Your task to perform on an android device: Search for "razer blade" on costco.com, select the first entry, add it to the cart, then select checkout. Image 0: 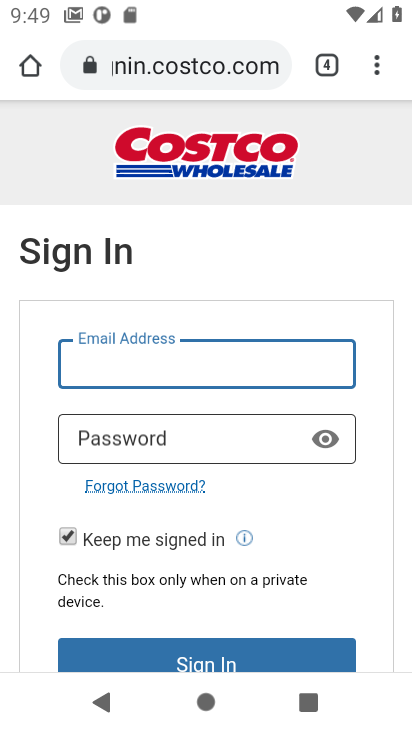
Step 0: press back button
Your task to perform on an android device: Search for "razer blade" on costco.com, select the first entry, add it to the cart, then select checkout. Image 1: 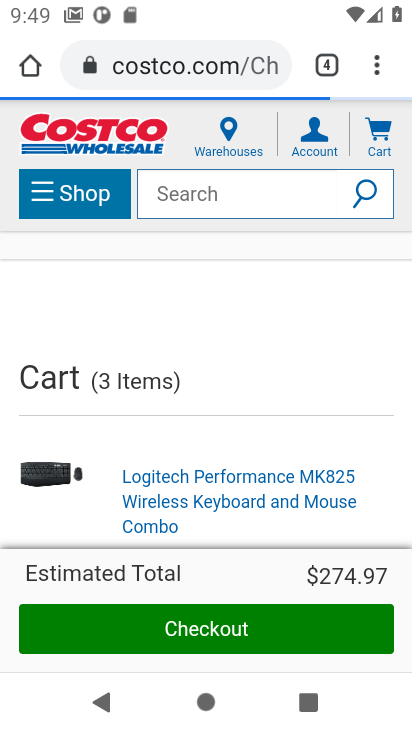
Step 1: click (184, 199)
Your task to perform on an android device: Search for "razer blade" on costco.com, select the first entry, add it to the cart, then select checkout. Image 2: 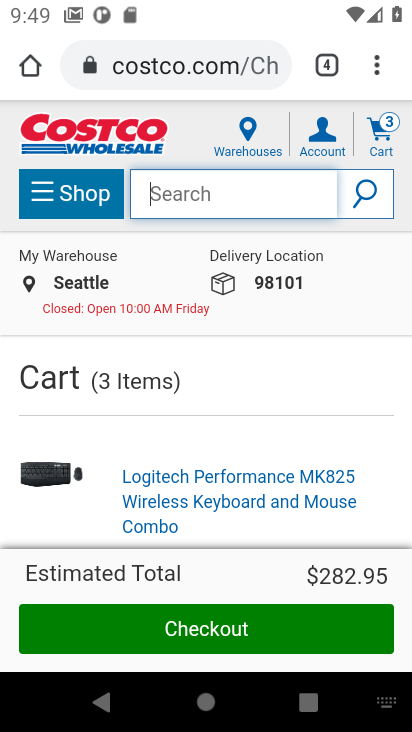
Step 2: type "razer blade"
Your task to perform on an android device: Search for "razer blade" on costco.com, select the first entry, add it to the cart, then select checkout. Image 3: 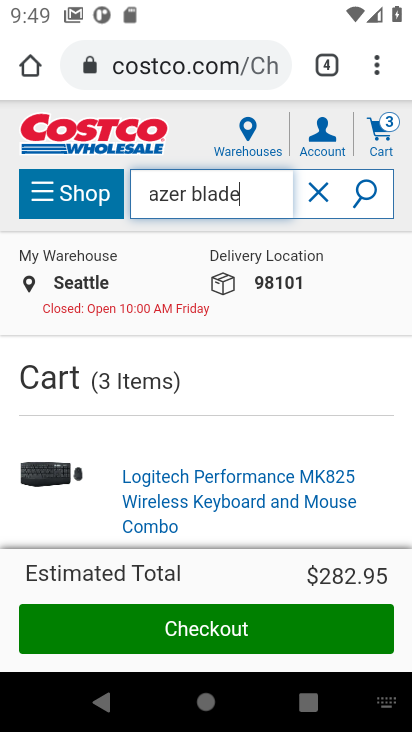
Step 3: press enter
Your task to perform on an android device: Search for "razer blade" on costco.com, select the first entry, add it to the cart, then select checkout. Image 4: 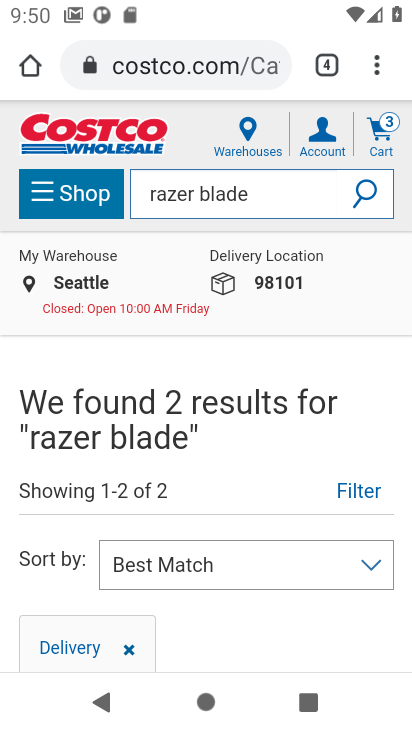
Step 4: drag from (215, 458) to (221, 171)
Your task to perform on an android device: Search for "razer blade" on costco.com, select the first entry, add it to the cart, then select checkout. Image 5: 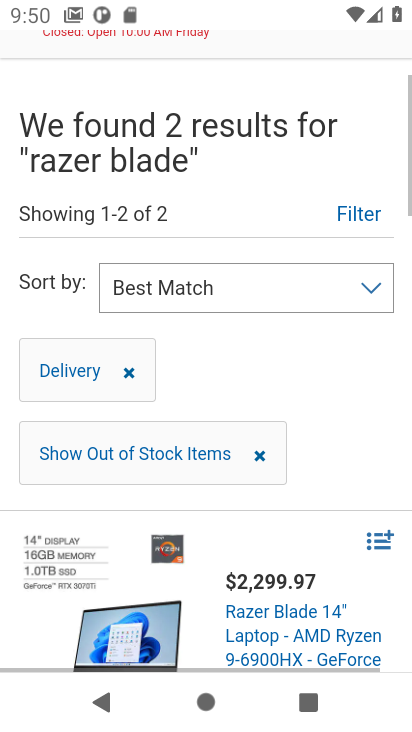
Step 5: drag from (266, 449) to (267, 155)
Your task to perform on an android device: Search for "razer blade" on costco.com, select the first entry, add it to the cart, then select checkout. Image 6: 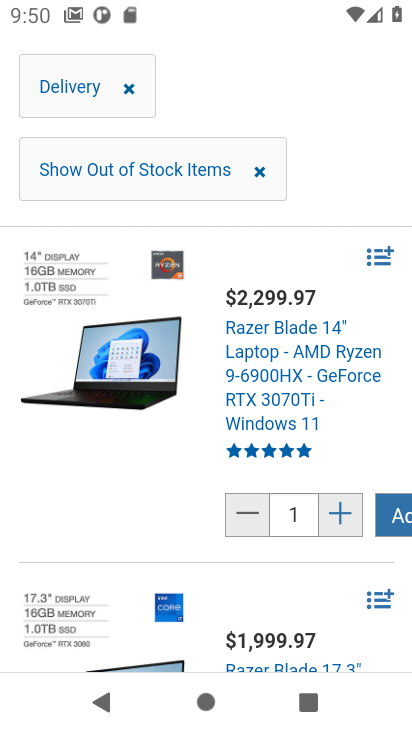
Step 6: click (402, 512)
Your task to perform on an android device: Search for "razer blade" on costco.com, select the first entry, add it to the cart, then select checkout. Image 7: 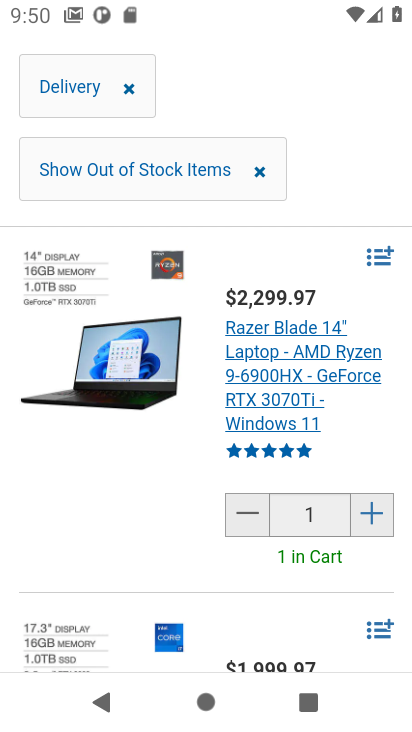
Step 7: drag from (311, 325) to (301, 607)
Your task to perform on an android device: Search for "razer blade" on costco.com, select the first entry, add it to the cart, then select checkout. Image 8: 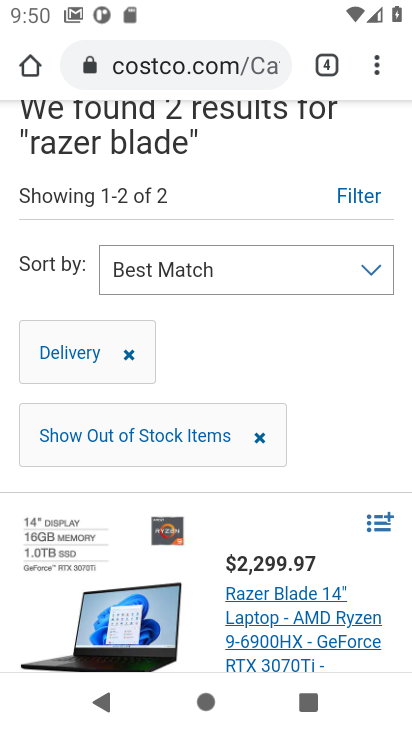
Step 8: drag from (217, 327) to (235, 582)
Your task to perform on an android device: Search for "razer blade" on costco.com, select the first entry, add it to the cart, then select checkout. Image 9: 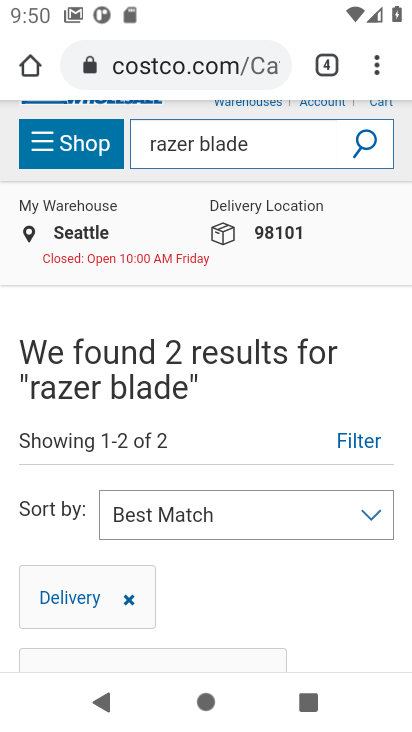
Step 9: drag from (214, 287) to (218, 551)
Your task to perform on an android device: Search for "razer blade" on costco.com, select the first entry, add it to the cart, then select checkout. Image 10: 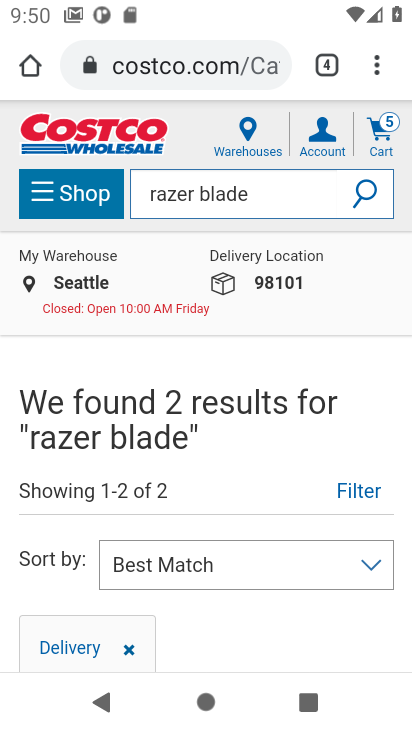
Step 10: click (381, 125)
Your task to perform on an android device: Search for "razer blade" on costco.com, select the first entry, add it to the cart, then select checkout. Image 11: 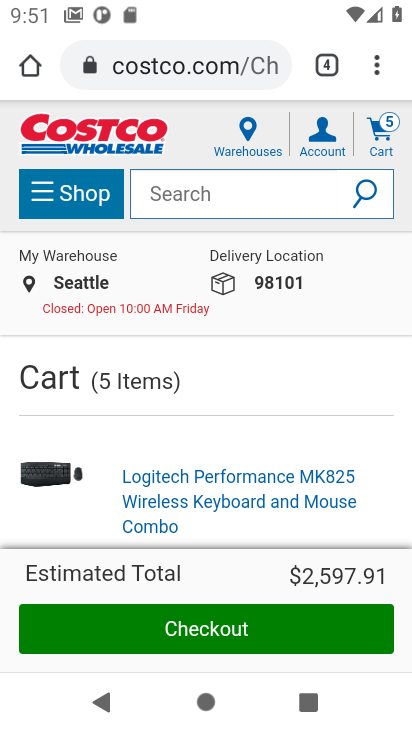
Step 11: click (235, 626)
Your task to perform on an android device: Search for "razer blade" on costco.com, select the first entry, add it to the cart, then select checkout. Image 12: 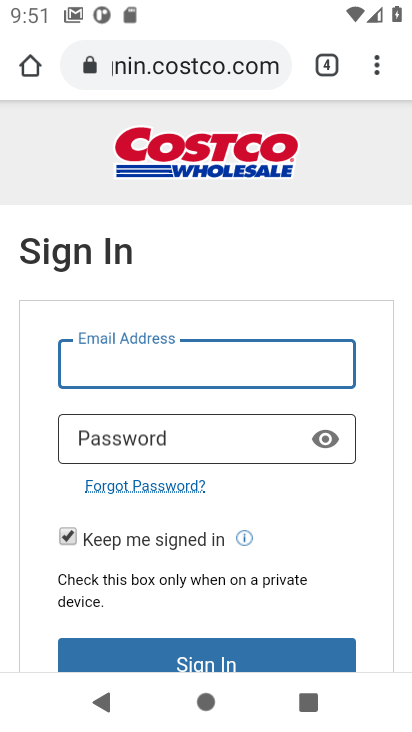
Step 12: task complete